Your task to perform on an android device: empty trash in google photos Image 0: 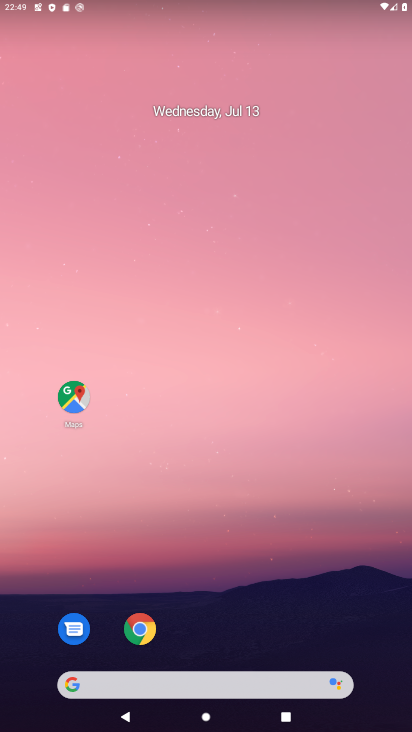
Step 0: press home button
Your task to perform on an android device: empty trash in google photos Image 1: 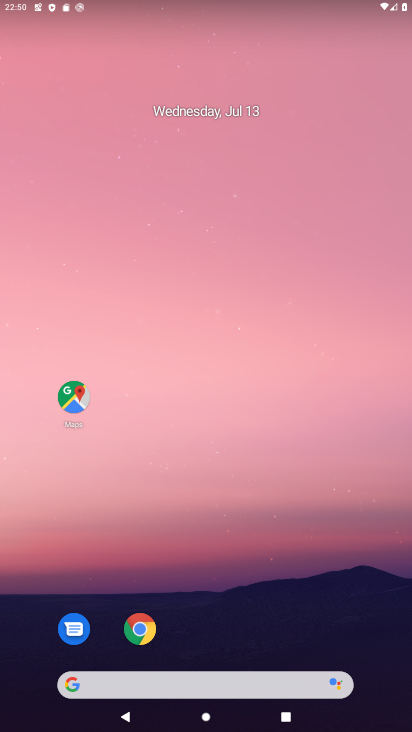
Step 1: drag from (215, 657) to (235, 0)
Your task to perform on an android device: empty trash in google photos Image 2: 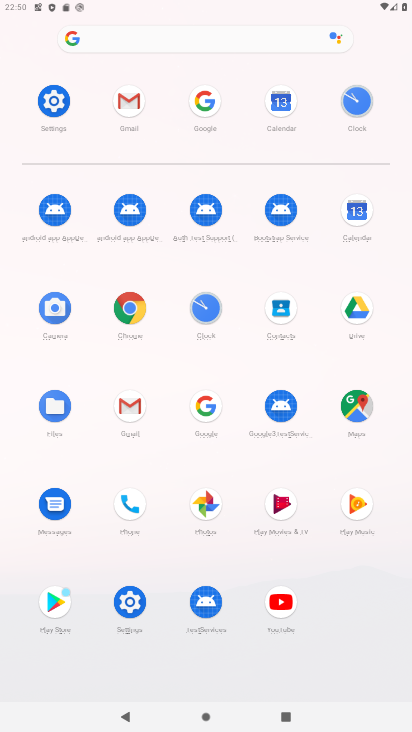
Step 2: click (200, 502)
Your task to perform on an android device: empty trash in google photos Image 3: 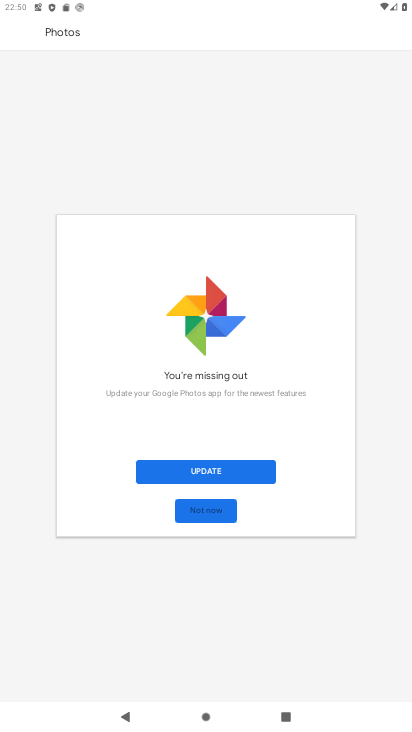
Step 3: press home button
Your task to perform on an android device: empty trash in google photos Image 4: 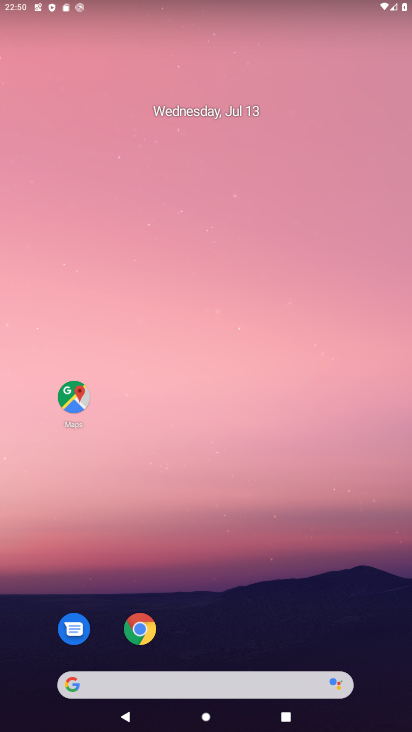
Step 4: drag from (212, 656) to (227, 13)
Your task to perform on an android device: empty trash in google photos Image 5: 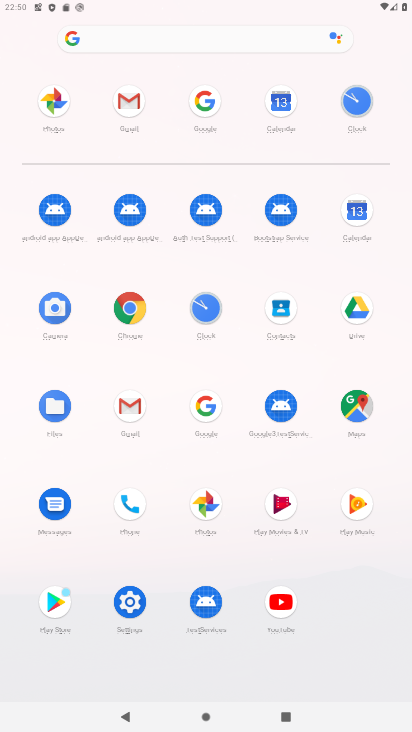
Step 5: click (207, 499)
Your task to perform on an android device: empty trash in google photos Image 6: 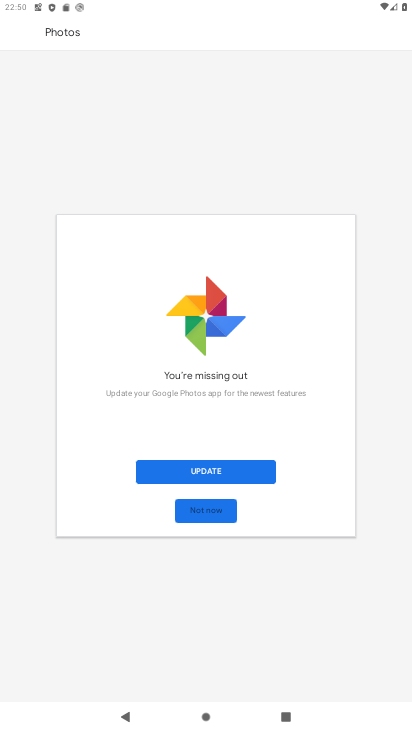
Step 6: click (207, 466)
Your task to perform on an android device: empty trash in google photos Image 7: 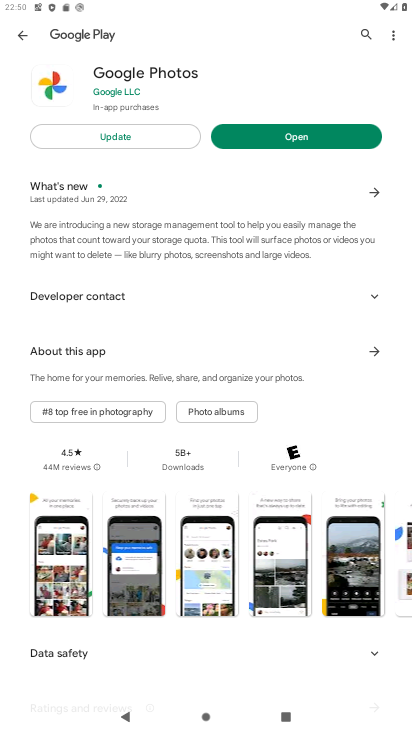
Step 7: click (115, 136)
Your task to perform on an android device: empty trash in google photos Image 8: 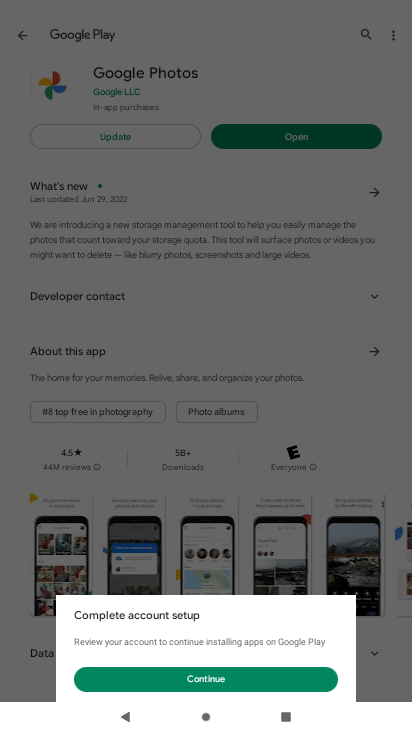
Step 8: click (107, 163)
Your task to perform on an android device: empty trash in google photos Image 9: 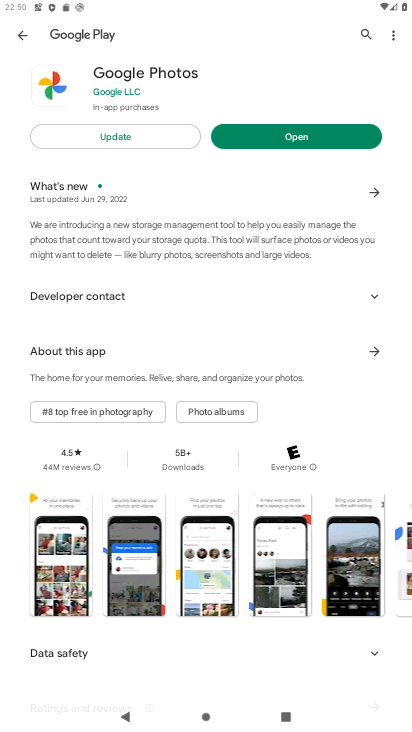
Step 9: click (114, 130)
Your task to perform on an android device: empty trash in google photos Image 10: 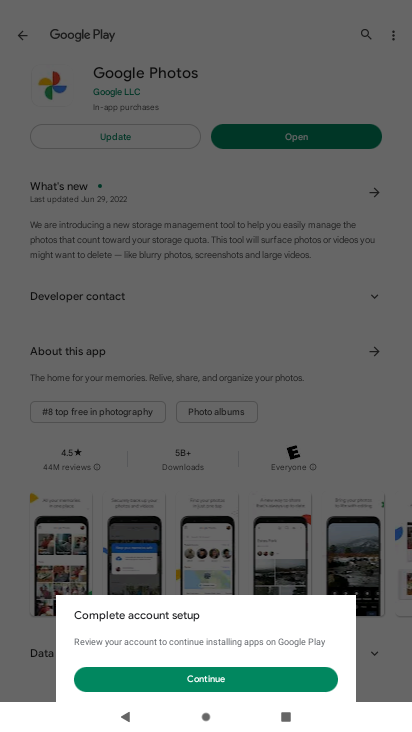
Step 10: click (204, 672)
Your task to perform on an android device: empty trash in google photos Image 11: 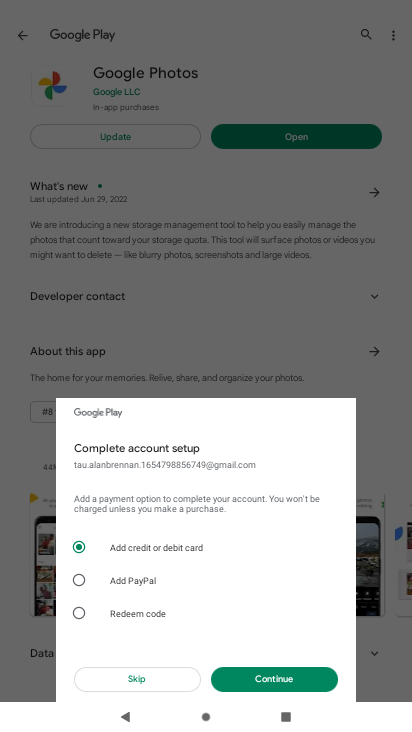
Step 11: click (131, 671)
Your task to perform on an android device: empty trash in google photos Image 12: 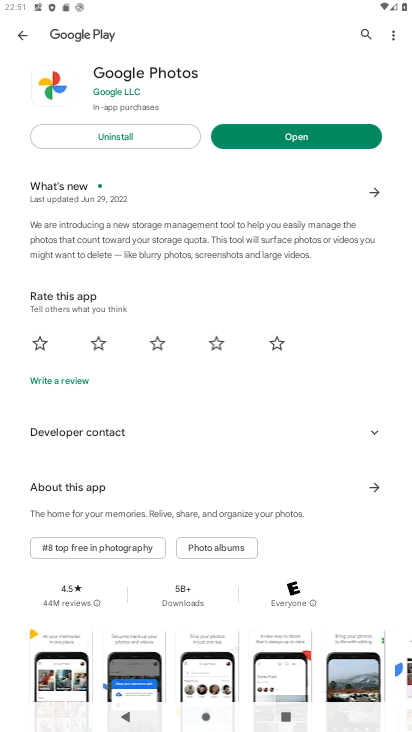
Step 12: click (293, 132)
Your task to perform on an android device: empty trash in google photos Image 13: 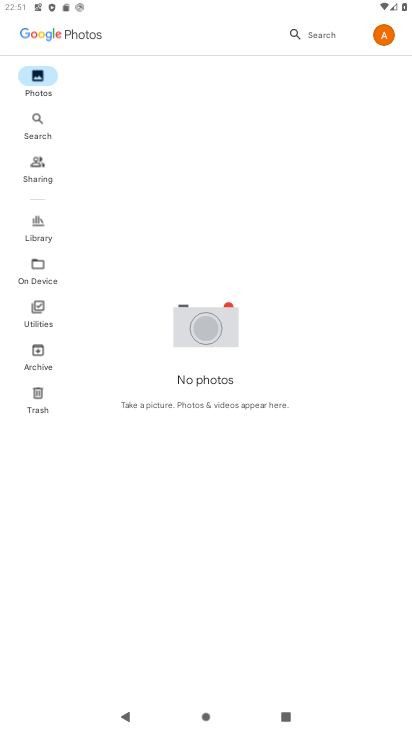
Step 13: click (38, 400)
Your task to perform on an android device: empty trash in google photos Image 14: 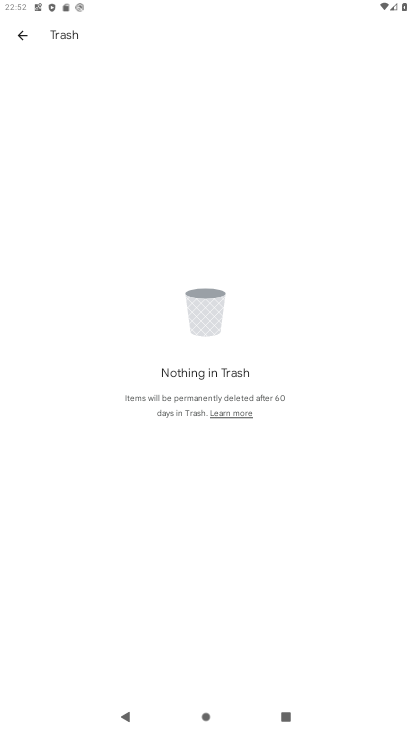
Step 14: task complete